Your task to perform on an android device: change notifications settings Image 0: 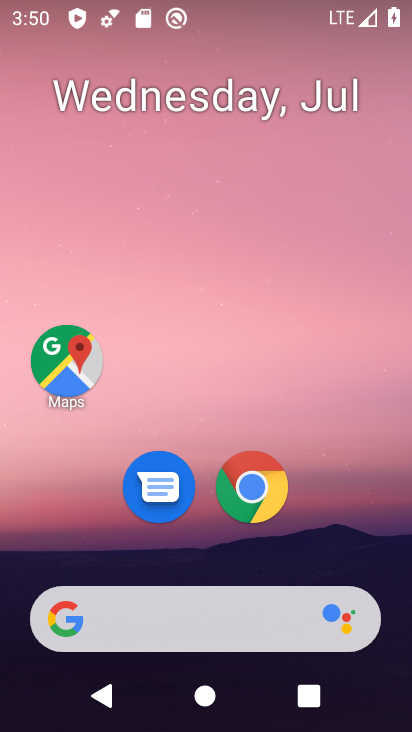
Step 0: drag from (174, 658) to (223, 183)
Your task to perform on an android device: change notifications settings Image 1: 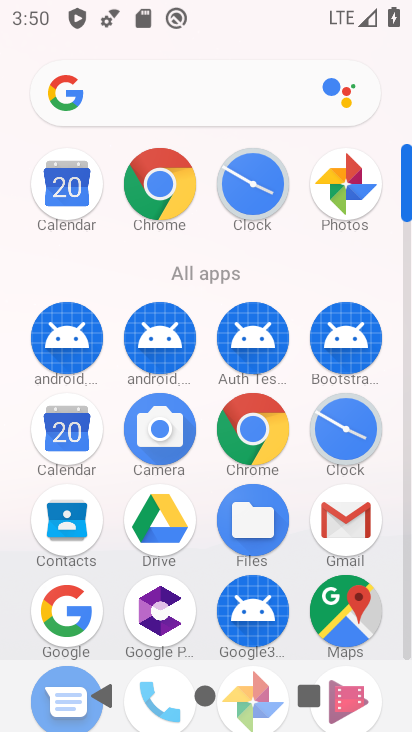
Step 1: drag from (185, 425) to (403, 471)
Your task to perform on an android device: change notifications settings Image 2: 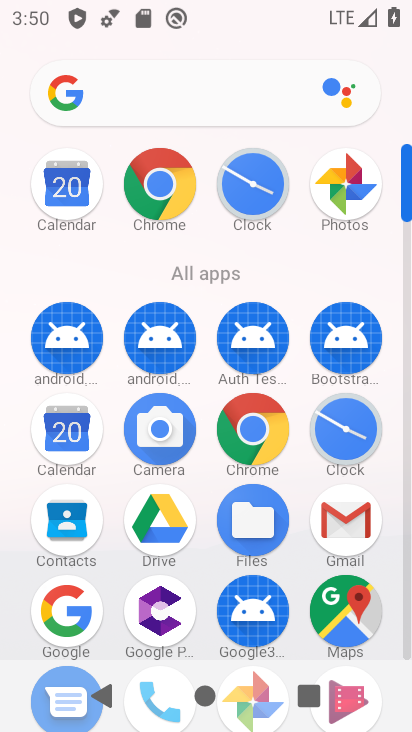
Step 2: click (256, 540)
Your task to perform on an android device: change notifications settings Image 3: 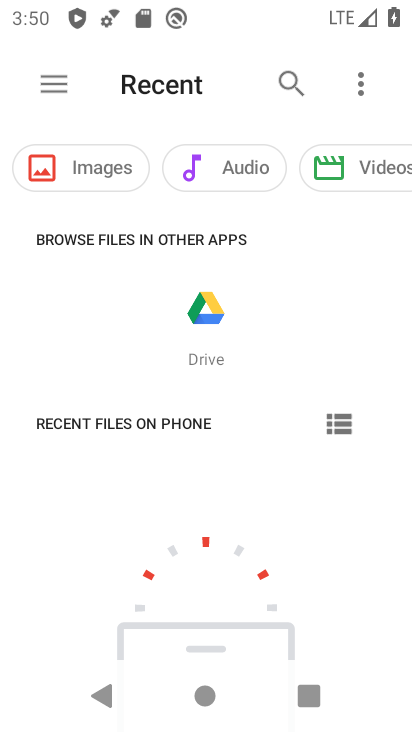
Step 3: press home button
Your task to perform on an android device: change notifications settings Image 4: 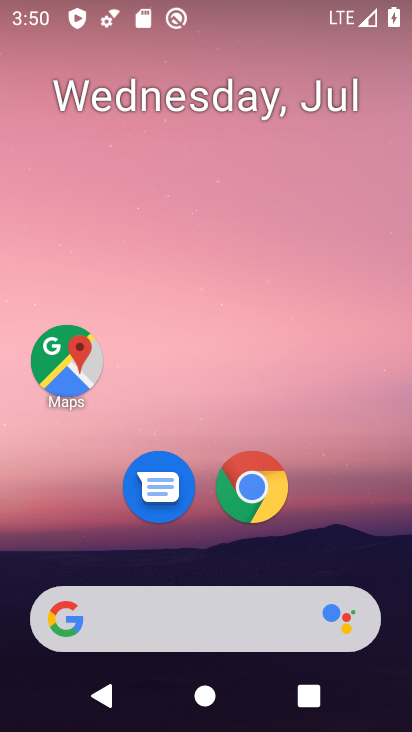
Step 4: drag from (205, 625) to (257, 245)
Your task to perform on an android device: change notifications settings Image 5: 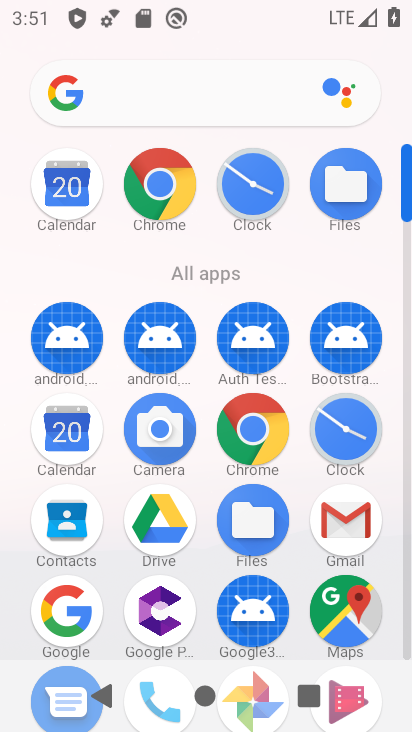
Step 5: drag from (154, 477) to (235, 94)
Your task to perform on an android device: change notifications settings Image 6: 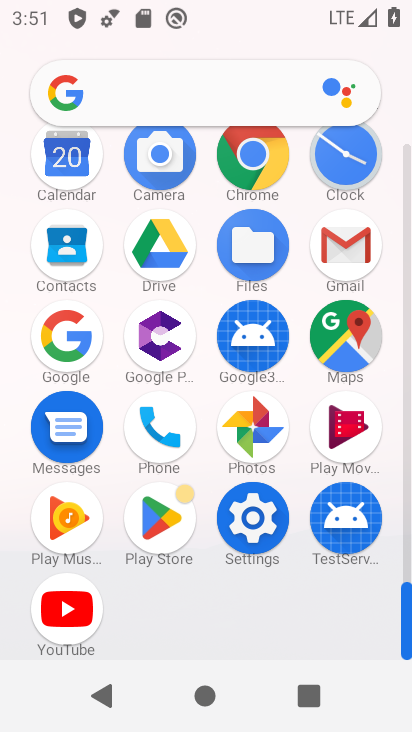
Step 6: click (247, 537)
Your task to perform on an android device: change notifications settings Image 7: 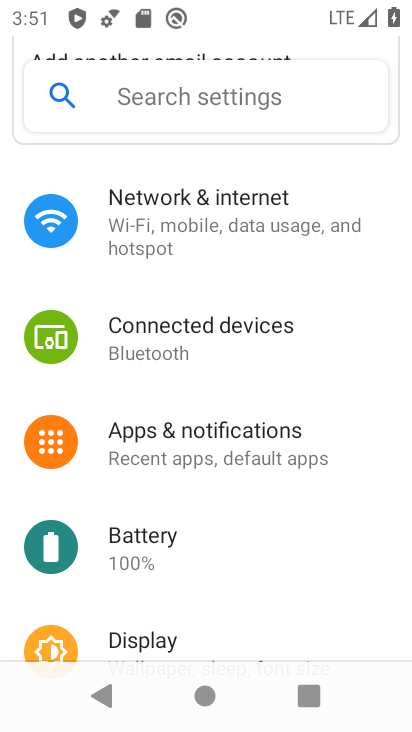
Step 7: click (207, 445)
Your task to perform on an android device: change notifications settings Image 8: 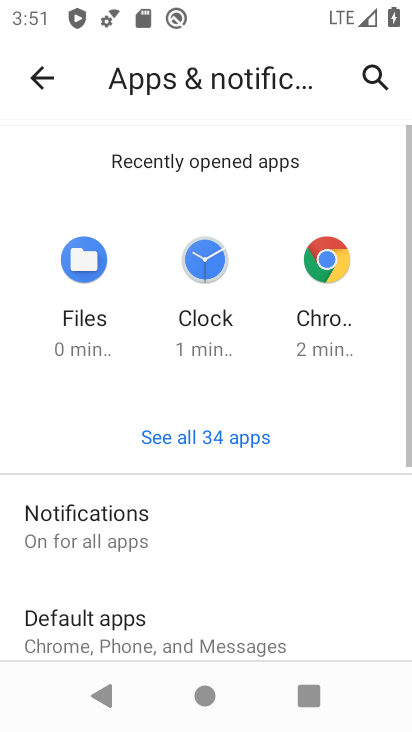
Step 8: click (113, 532)
Your task to perform on an android device: change notifications settings Image 9: 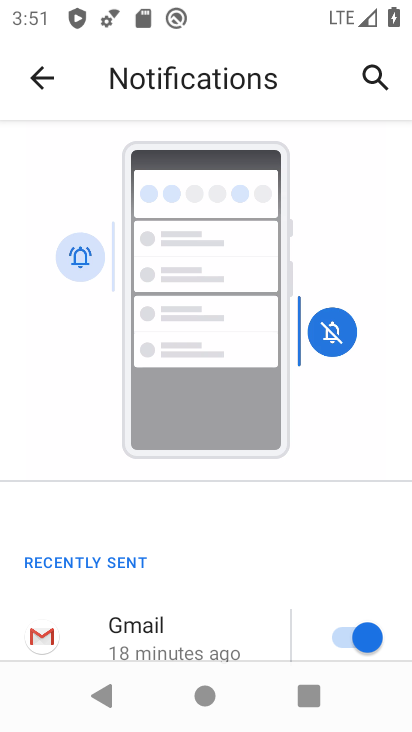
Step 9: drag from (162, 556) to (213, 334)
Your task to perform on an android device: change notifications settings Image 10: 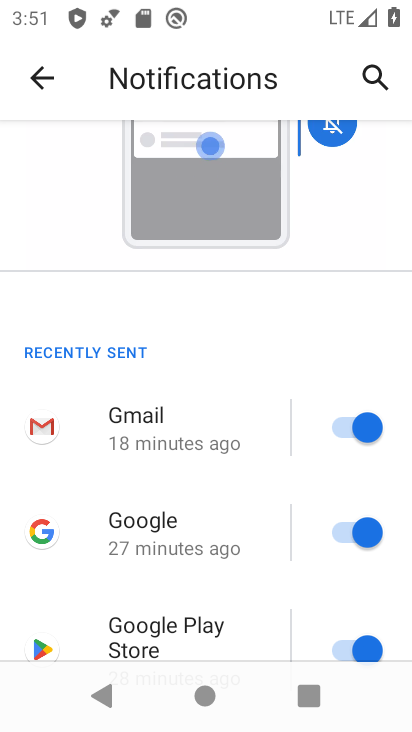
Step 10: click (348, 436)
Your task to perform on an android device: change notifications settings Image 11: 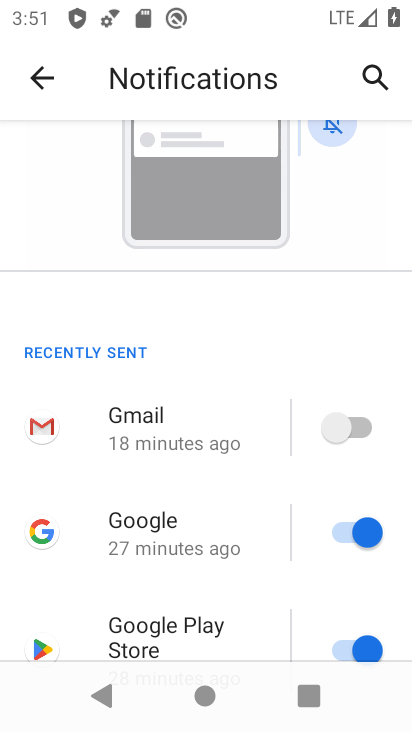
Step 11: task complete